Your task to perform on an android device: open chrome privacy settings Image 0: 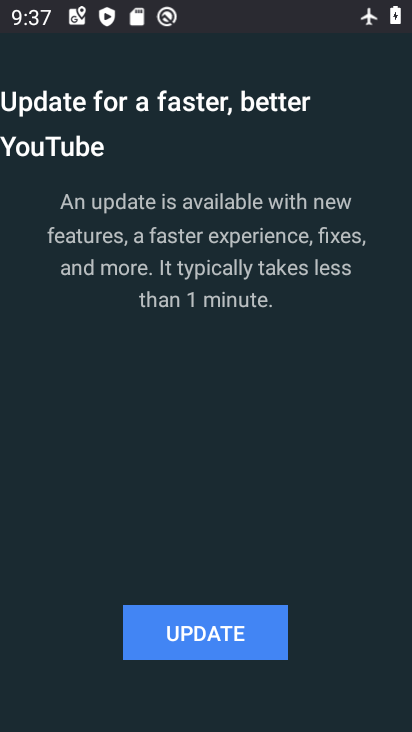
Step 0: press back button
Your task to perform on an android device: open chrome privacy settings Image 1: 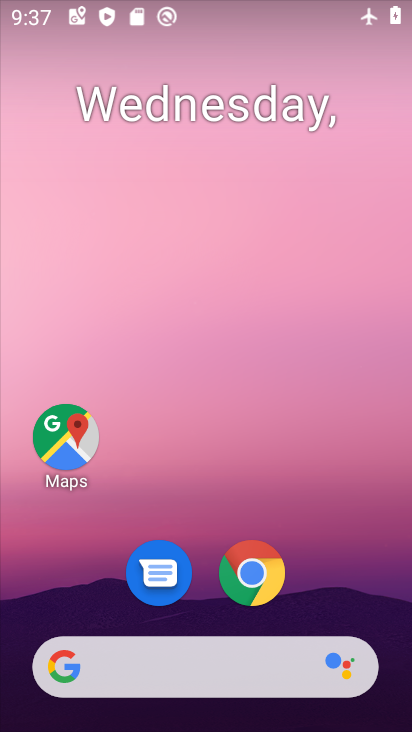
Step 1: click (256, 570)
Your task to perform on an android device: open chrome privacy settings Image 2: 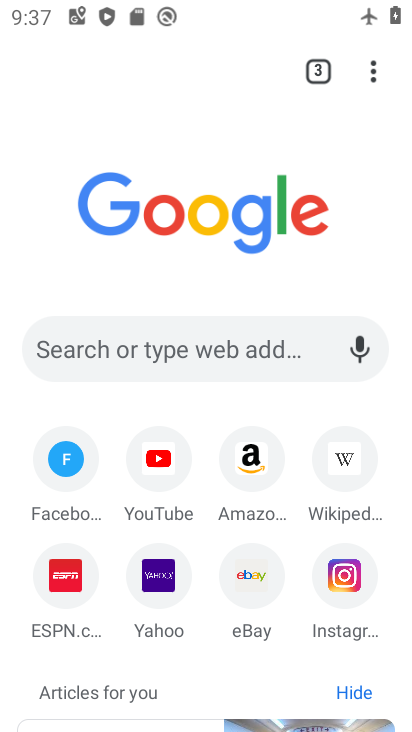
Step 2: click (371, 68)
Your task to perform on an android device: open chrome privacy settings Image 3: 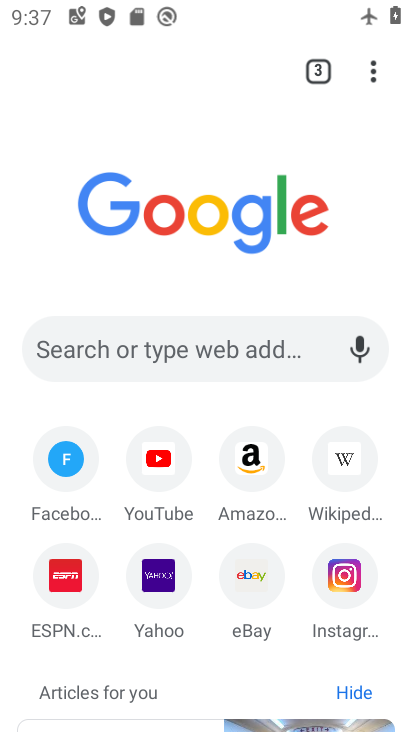
Step 3: click (371, 68)
Your task to perform on an android device: open chrome privacy settings Image 4: 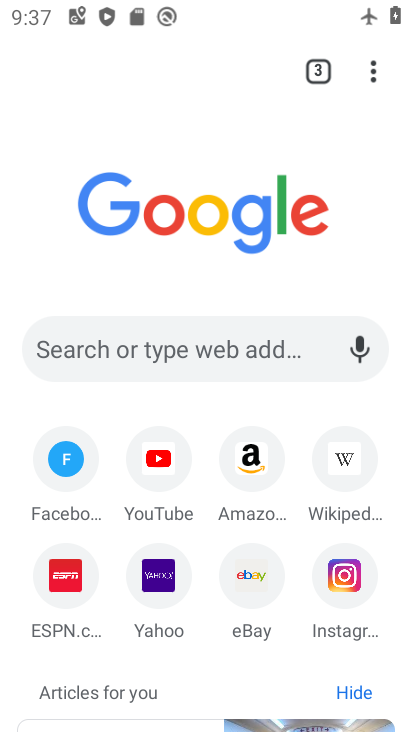
Step 4: click (371, 70)
Your task to perform on an android device: open chrome privacy settings Image 5: 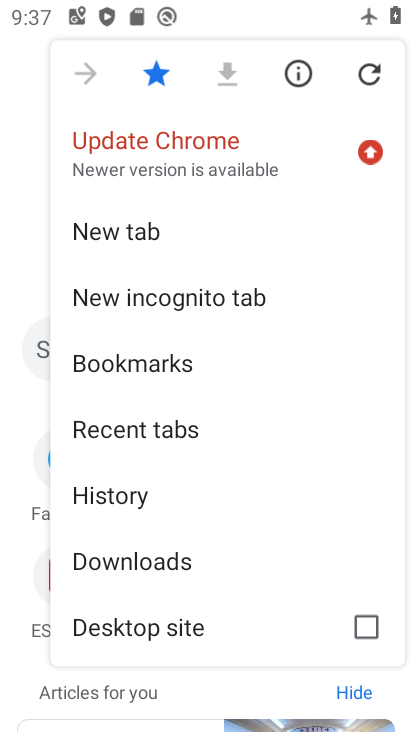
Step 5: drag from (280, 457) to (277, 262)
Your task to perform on an android device: open chrome privacy settings Image 6: 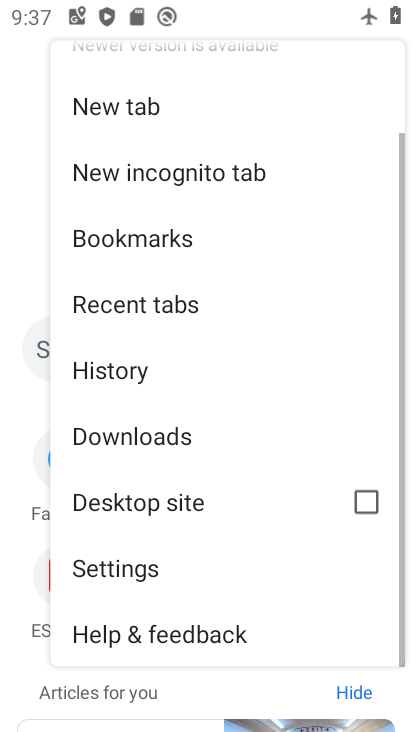
Step 6: click (249, 244)
Your task to perform on an android device: open chrome privacy settings Image 7: 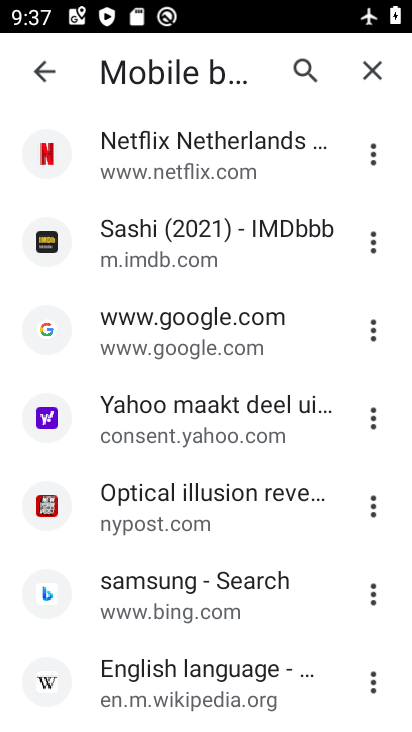
Step 7: click (45, 66)
Your task to perform on an android device: open chrome privacy settings Image 8: 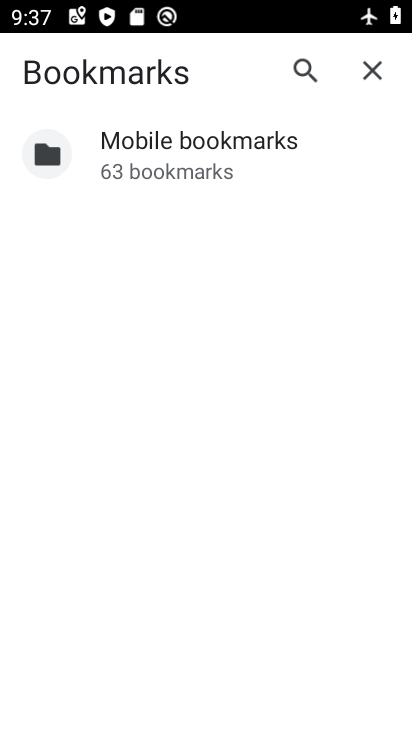
Step 8: press back button
Your task to perform on an android device: open chrome privacy settings Image 9: 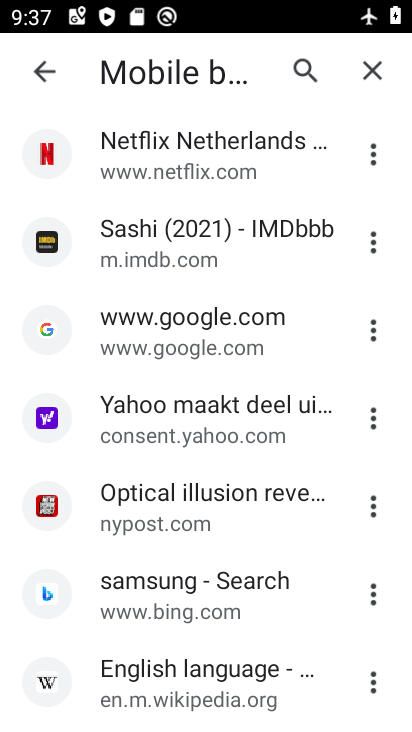
Step 9: press back button
Your task to perform on an android device: open chrome privacy settings Image 10: 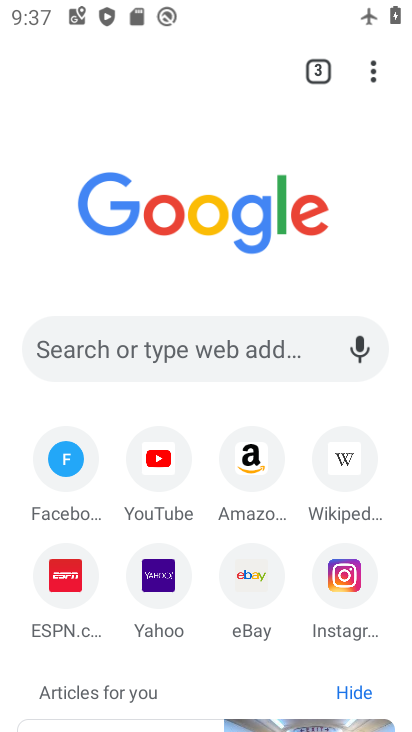
Step 10: click (373, 66)
Your task to perform on an android device: open chrome privacy settings Image 11: 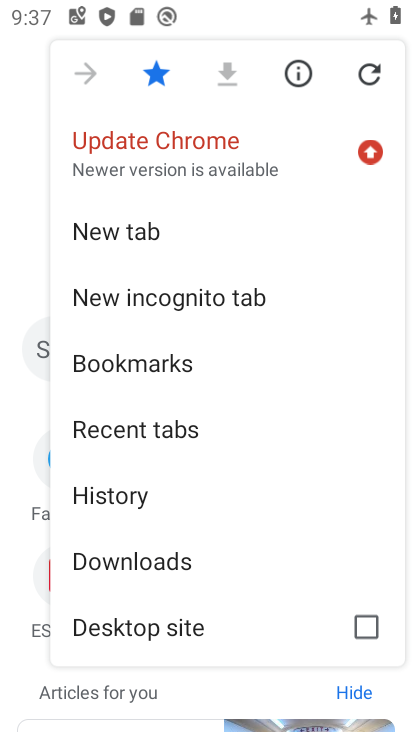
Step 11: drag from (303, 375) to (293, 218)
Your task to perform on an android device: open chrome privacy settings Image 12: 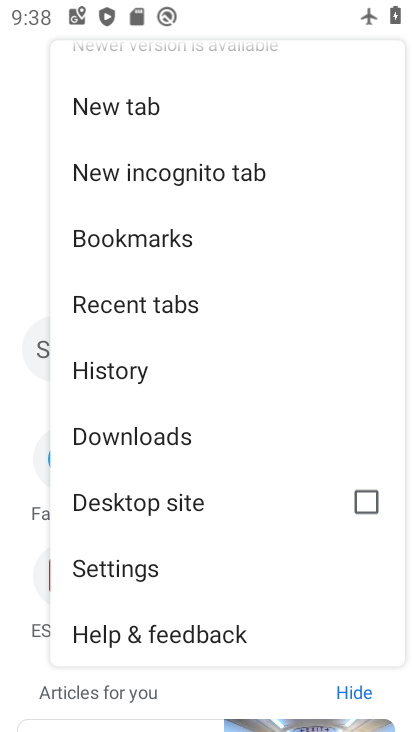
Step 12: drag from (269, 459) to (261, 298)
Your task to perform on an android device: open chrome privacy settings Image 13: 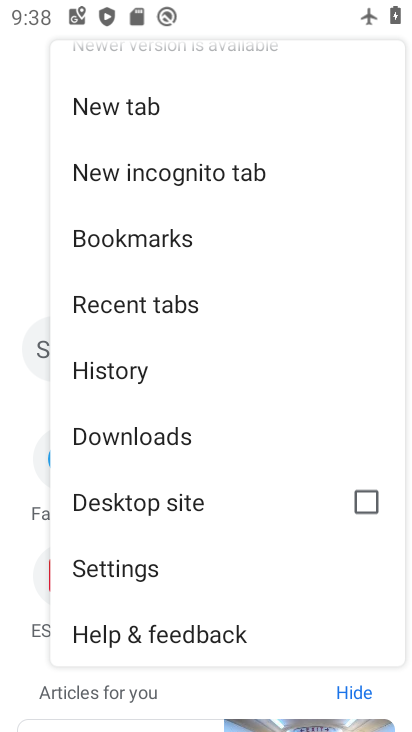
Step 13: click (103, 556)
Your task to perform on an android device: open chrome privacy settings Image 14: 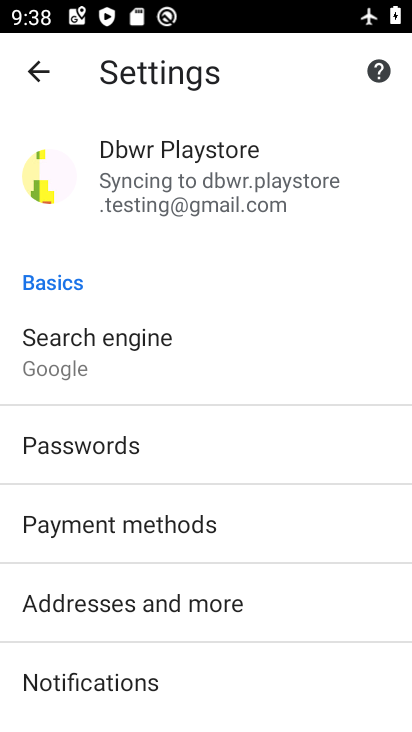
Step 14: drag from (330, 466) to (335, 226)
Your task to perform on an android device: open chrome privacy settings Image 15: 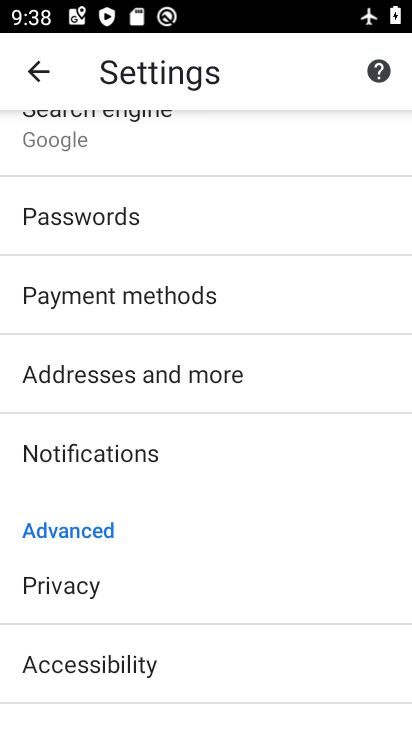
Step 15: drag from (311, 663) to (334, 318)
Your task to perform on an android device: open chrome privacy settings Image 16: 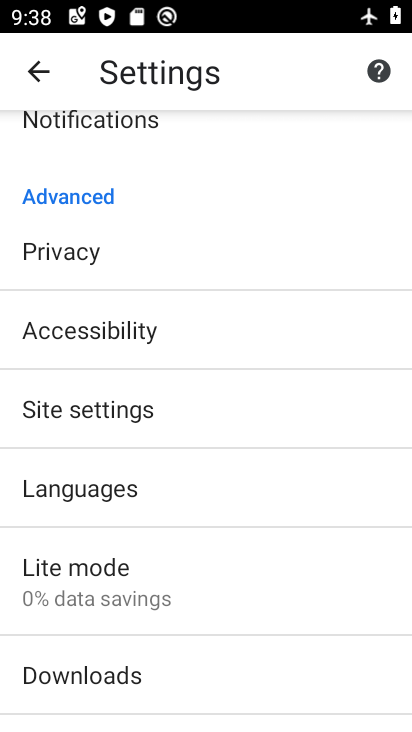
Step 16: click (71, 249)
Your task to perform on an android device: open chrome privacy settings Image 17: 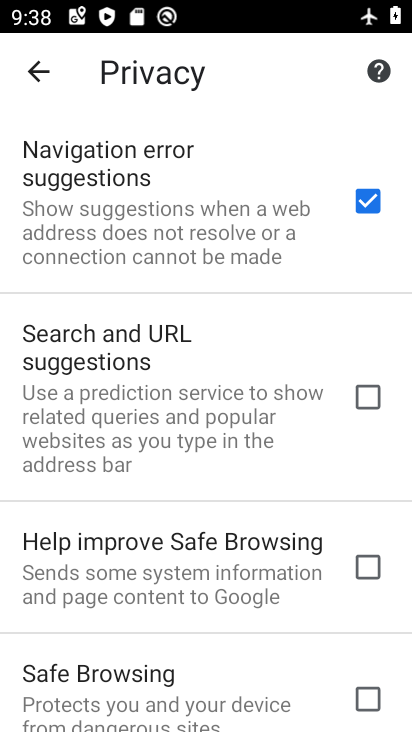
Step 17: task complete